Your task to perform on an android device: turn notification dots off Image 0: 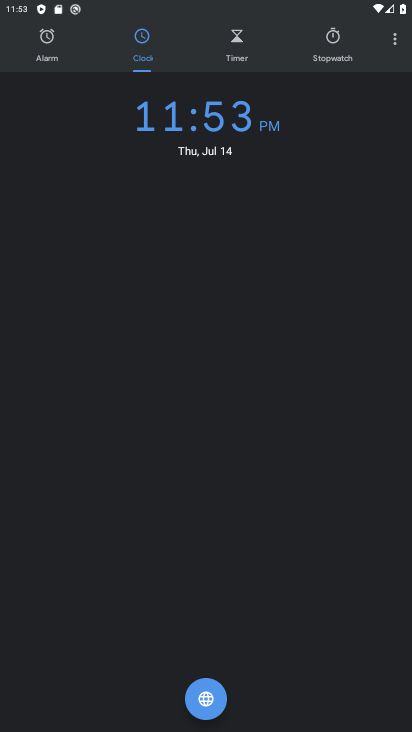
Step 0: press home button
Your task to perform on an android device: turn notification dots off Image 1: 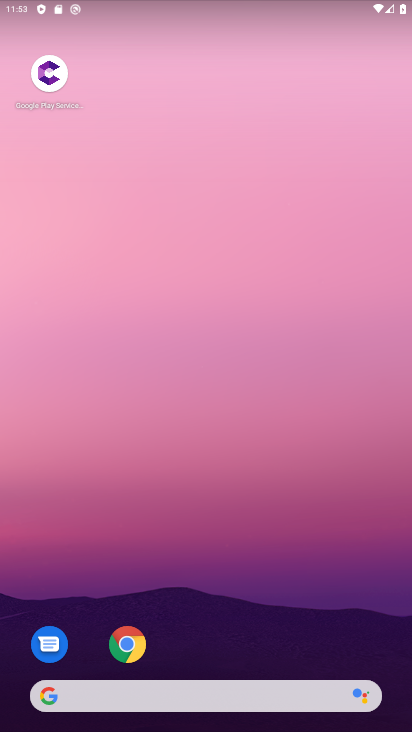
Step 1: drag from (283, 601) to (289, 156)
Your task to perform on an android device: turn notification dots off Image 2: 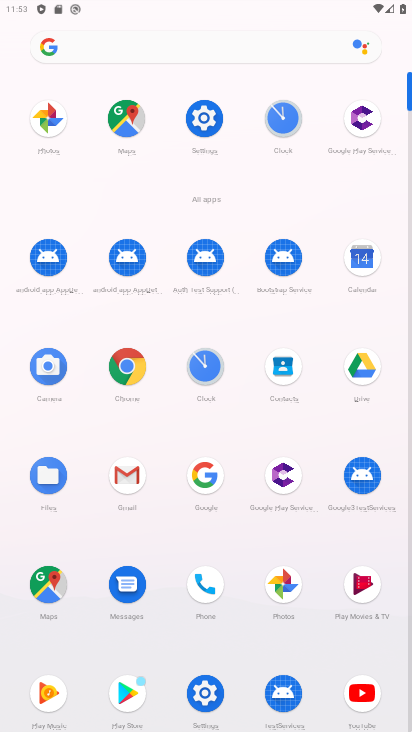
Step 2: click (222, 119)
Your task to perform on an android device: turn notification dots off Image 3: 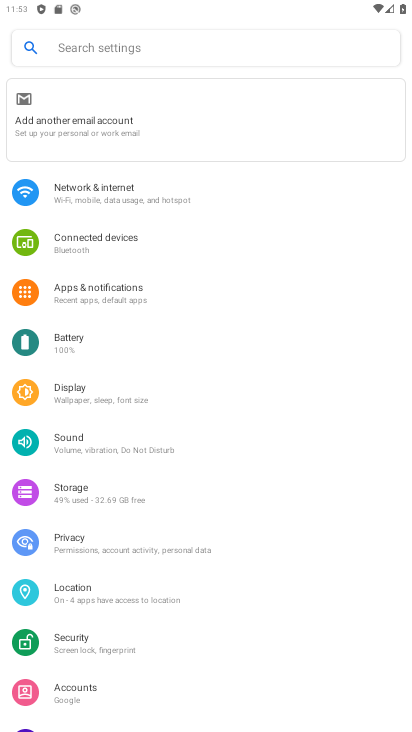
Step 3: click (104, 291)
Your task to perform on an android device: turn notification dots off Image 4: 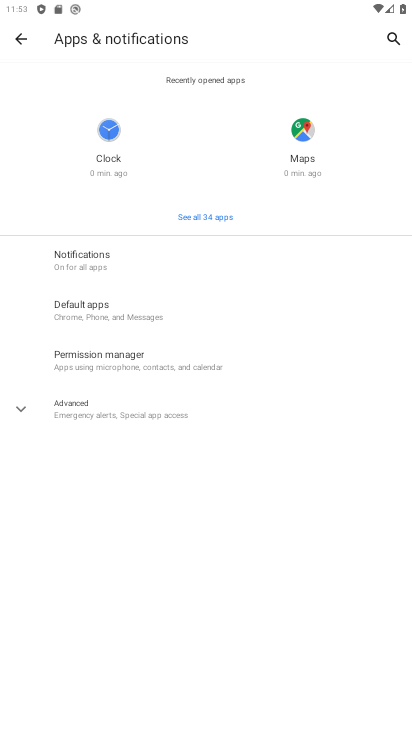
Step 4: click (105, 398)
Your task to perform on an android device: turn notification dots off Image 5: 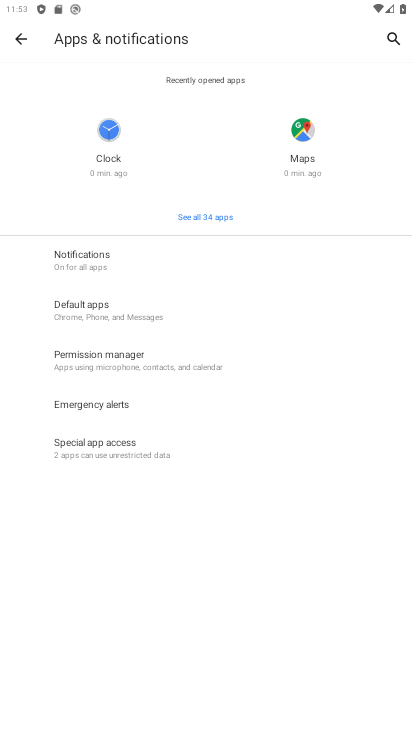
Step 5: click (137, 250)
Your task to perform on an android device: turn notification dots off Image 6: 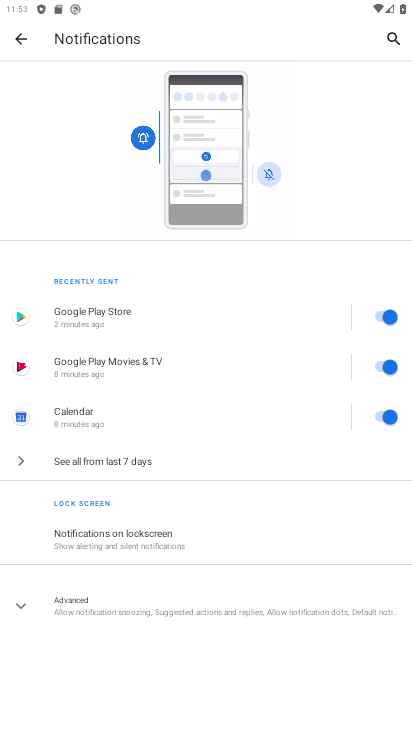
Step 6: click (123, 598)
Your task to perform on an android device: turn notification dots off Image 7: 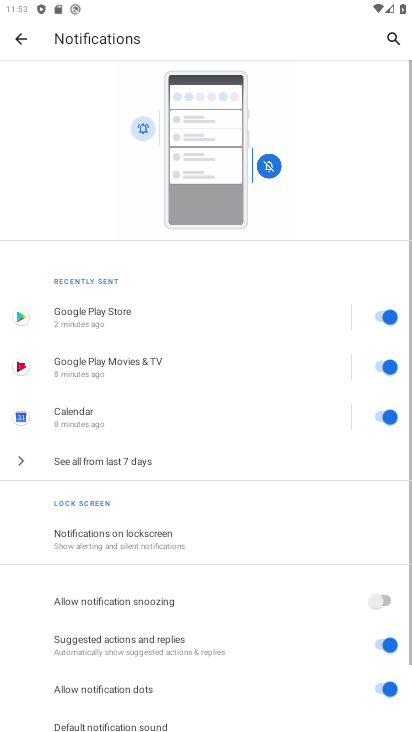
Step 7: drag from (123, 598) to (154, 394)
Your task to perform on an android device: turn notification dots off Image 8: 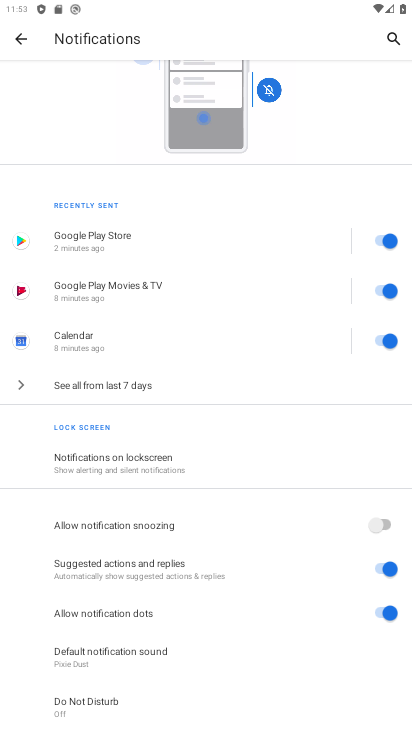
Step 8: click (391, 614)
Your task to perform on an android device: turn notification dots off Image 9: 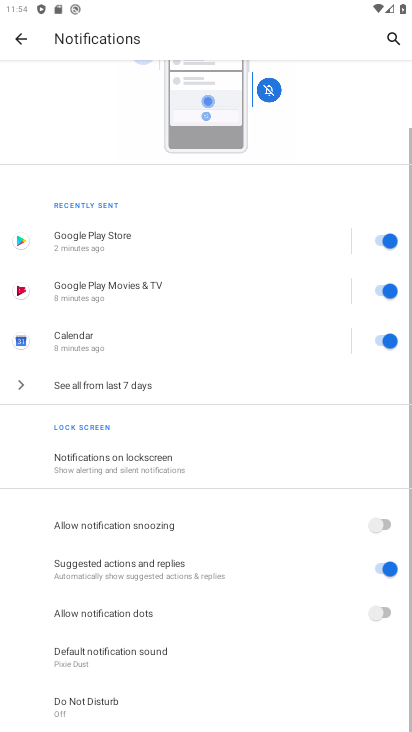
Step 9: task complete